Your task to perform on an android device: What's the weather? Image 0: 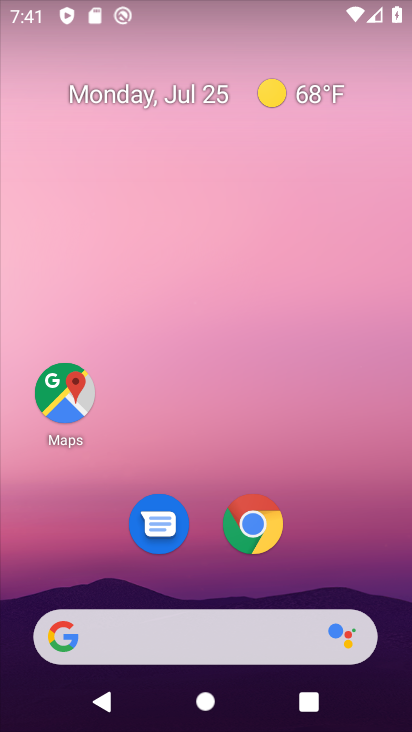
Step 0: click (152, 630)
Your task to perform on an android device: What's the weather? Image 1: 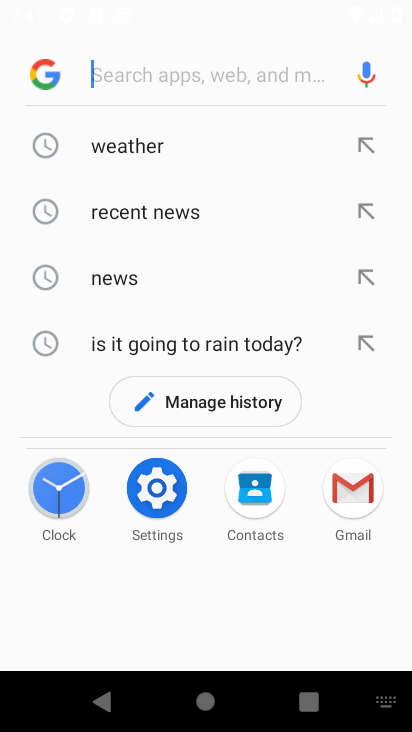
Step 1: click (136, 146)
Your task to perform on an android device: What's the weather? Image 2: 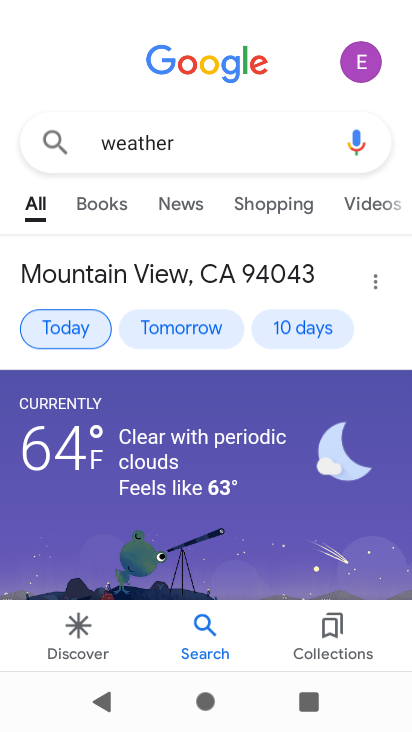
Step 2: click (76, 331)
Your task to perform on an android device: What's the weather? Image 3: 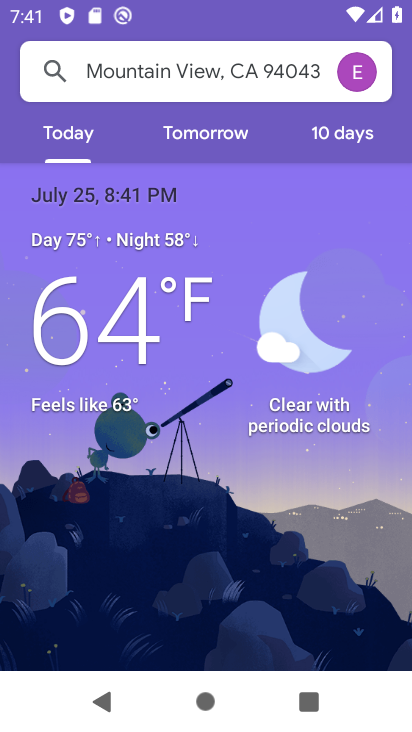
Step 3: task complete